Your task to perform on an android device: Open Maps and search for coffee Image 0: 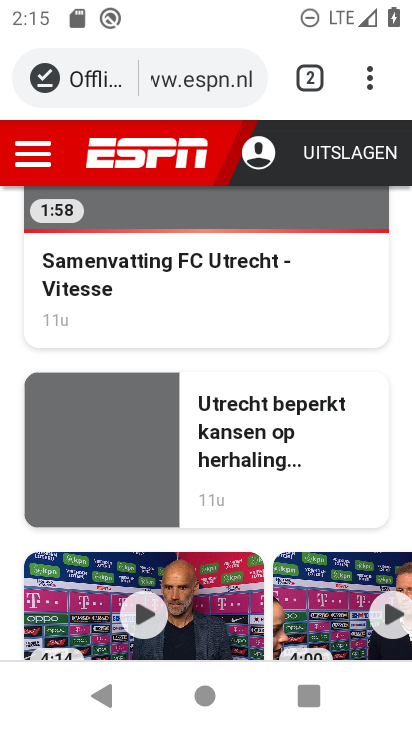
Step 0: press home button
Your task to perform on an android device: Open Maps and search for coffee Image 1: 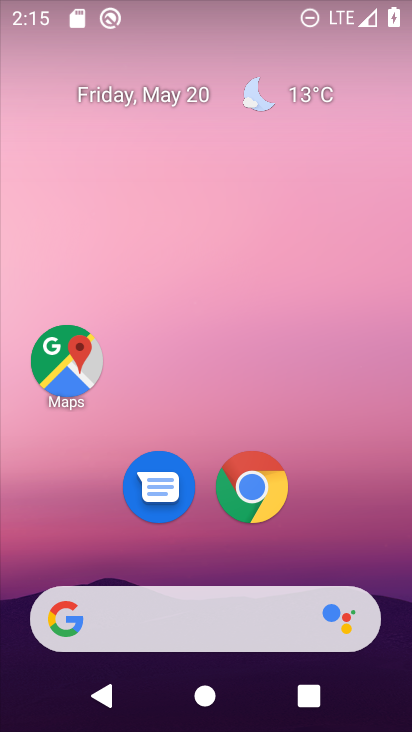
Step 1: drag from (211, 548) to (217, 45)
Your task to perform on an android device: Open Maps and search for coffee Image 2: 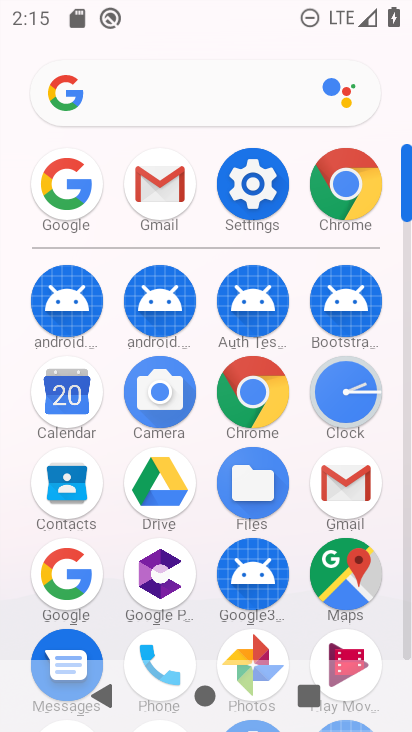
Step 2: click (337, 567)
Your task to perform on an android device: Open Maps and search for coffee Image 3: 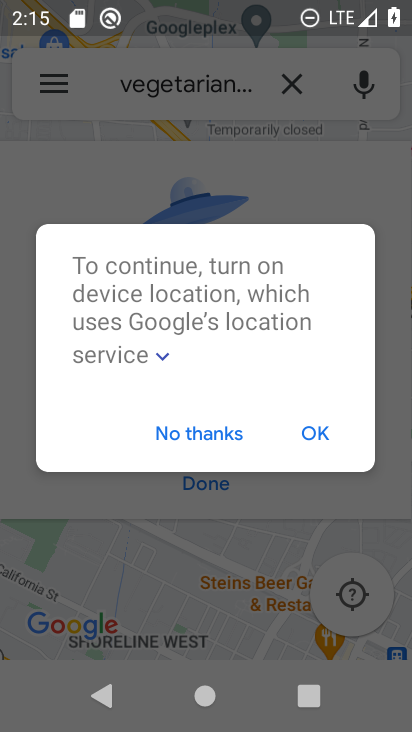
Step 3: click (303, 432)
Your task to perform on an android device: Open Maps and search for coffee Image 4: 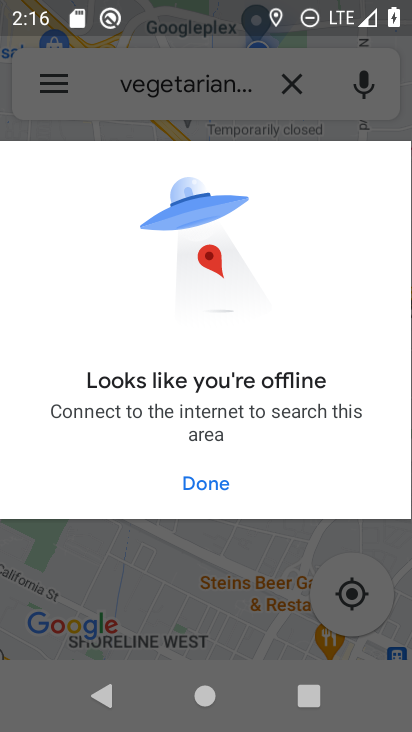
Step 4: click (213, 478)
Your task to perform on an android device: Open Maps and search for coffee Image 5: 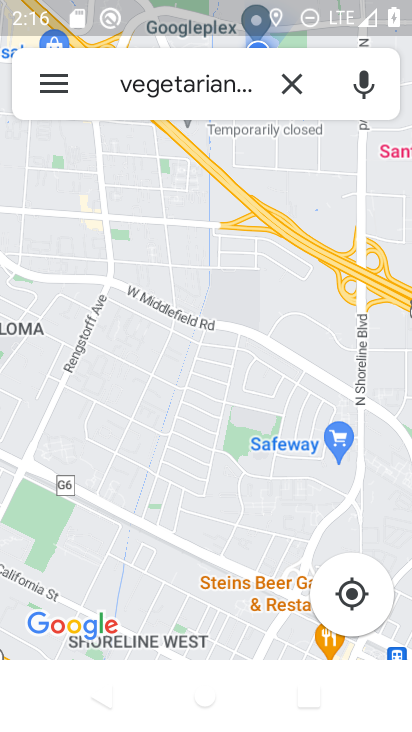
Step 5: click (291, 84)
Your task to perform on an android device: Open Maps and search for coffee Image 6: 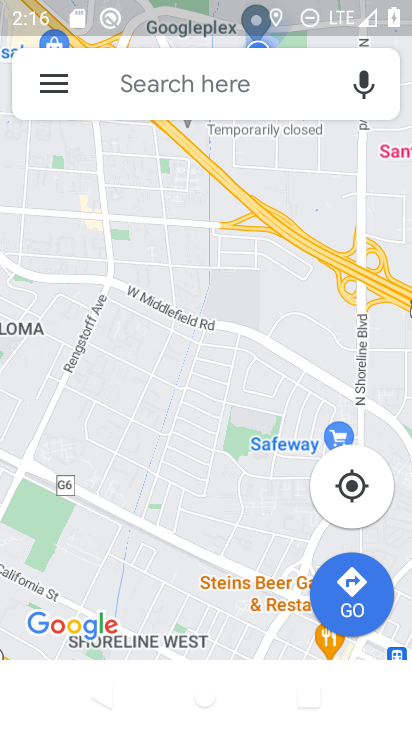
Step 6: click (127, 76)
Your task to perform on an android device: Open Maps and search for coffee Image 7: 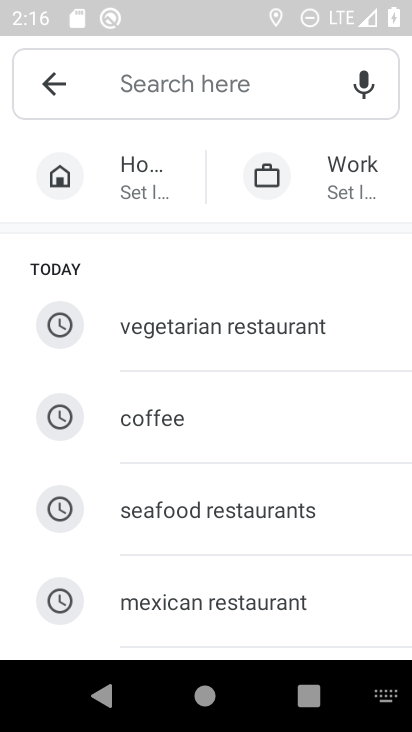
Step 7: click (166, 417)
Your task to perform on an android device: Open Maps and search for coffee Image 8: 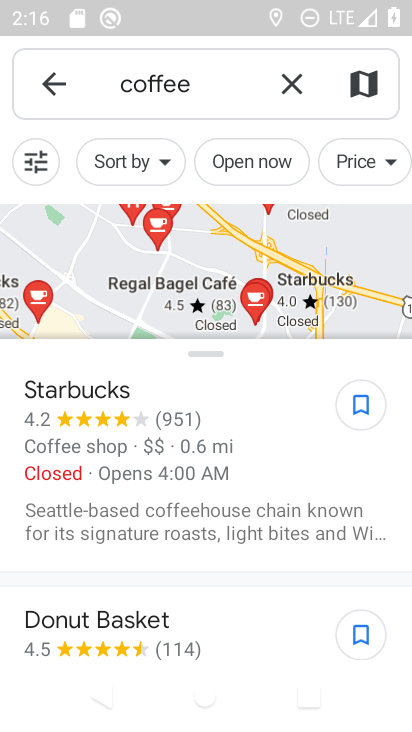
Step 8: task complete